Your task to perform on an android device: check battery use Image 0: 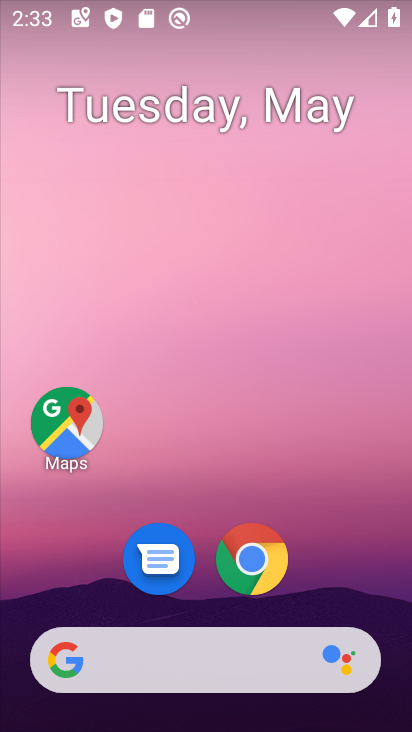
Step 0: drag from (203, 670) to (320, 146)
Your task to perform on an android device: check battery use Image 1: 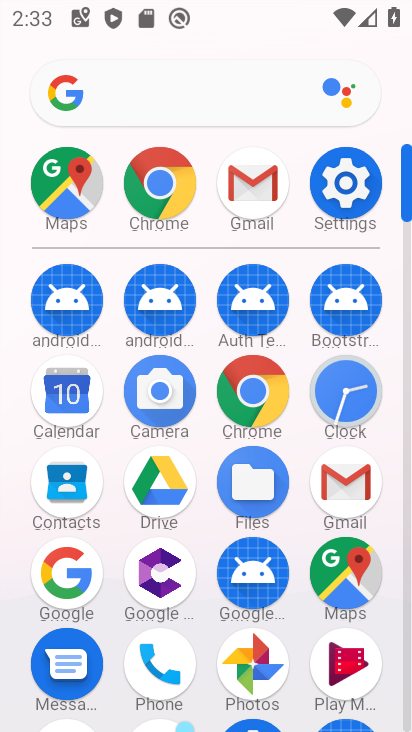
Step 1: click (348, 183)
Your task to perform on an android device: check battery use Image 2: 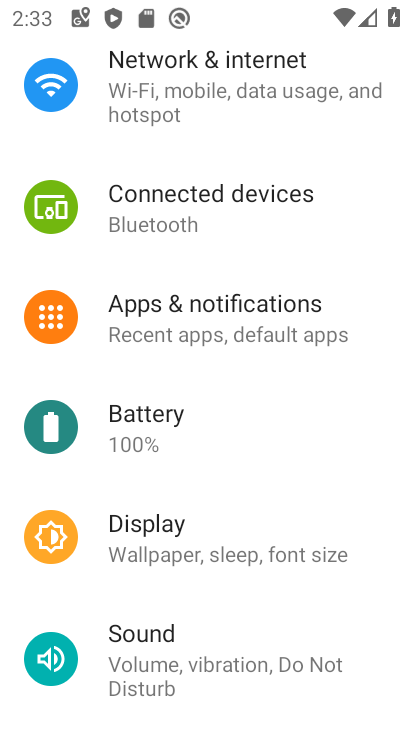
Step 2: click (165, 429)
Your task to perform on an android device: check battery use Image 3: 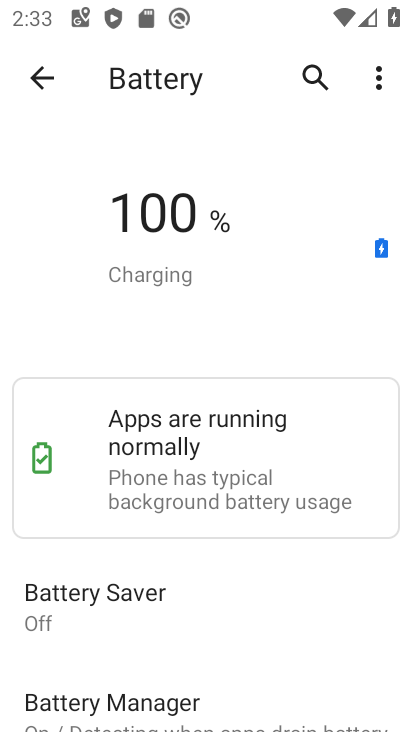
Step 3: click (377, 77)
Your task to perform on an android device: check battery use Image 4: 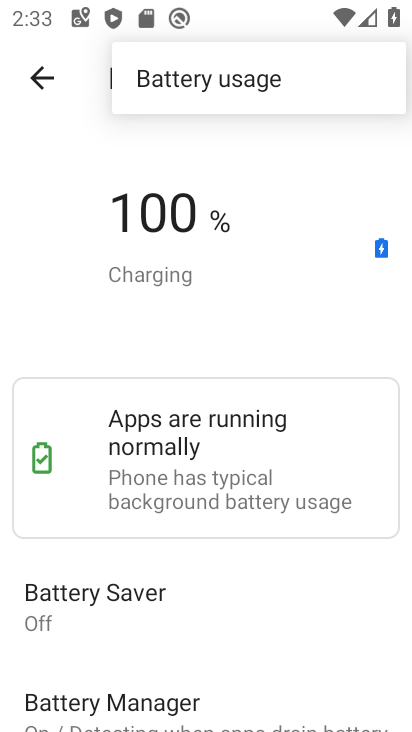
Step 4: click (251, 82)
Your task to perform on an android device: check battery use Image 5: 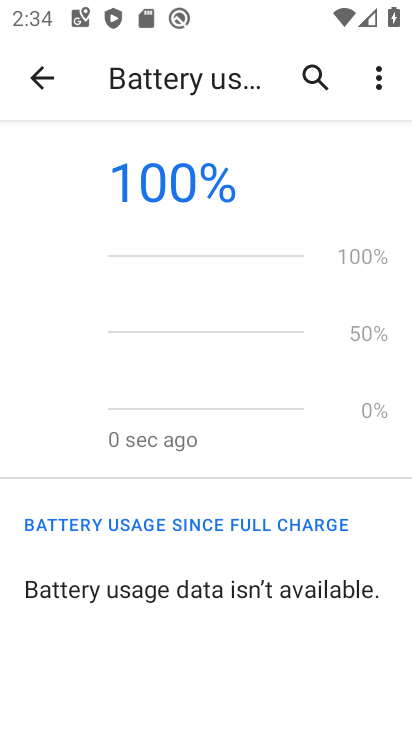
Step 5: task complete